Your task to perform on an android device: delete location history Image 0: 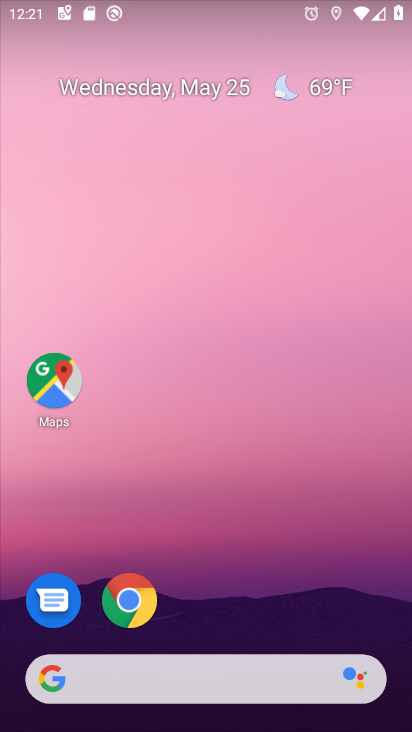
Step 0: drag from (377, 635) to (355, 209)
Your task to perform on an android device: delete location history Image 1: 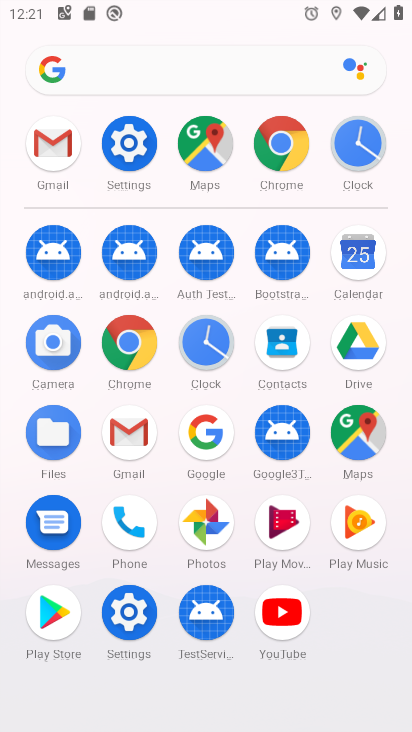
Step 1: click (362, 426)
Your task to perform on an android device: delete location history Image 2: 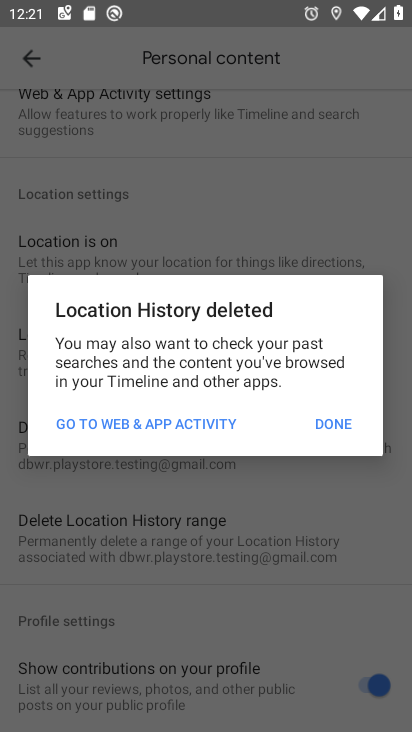
Step 2: click (337, 420)
Your task to perform on an android device: delete location history Image 3: 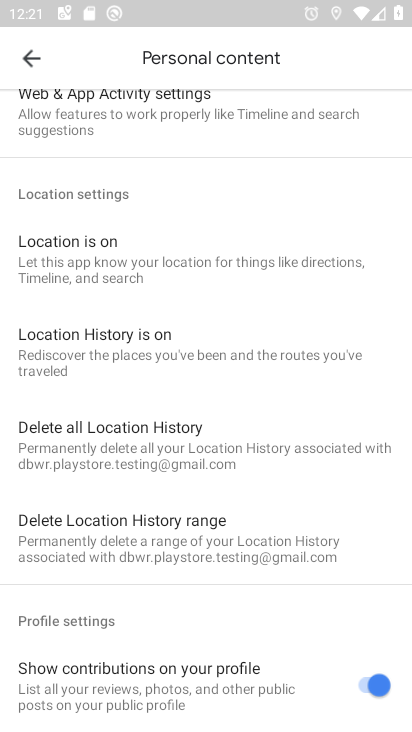
Step 3: drag from (346, 565) to (345, 398)
Your task to perform on an android device: delete location history Image 4: 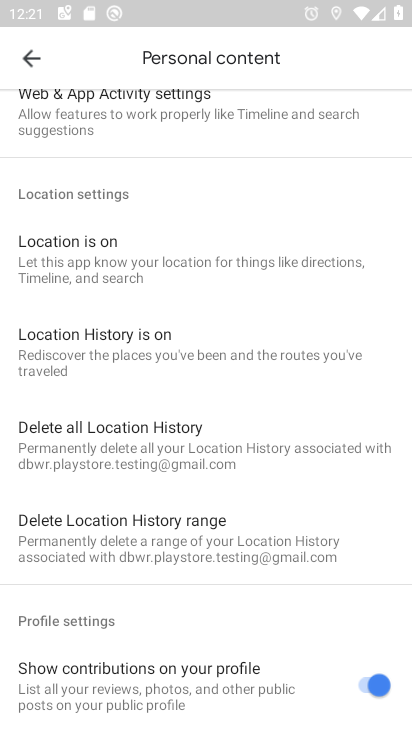
Step 4: click (19, 64)
Your task to perform on an android device: delete location history Image 5: 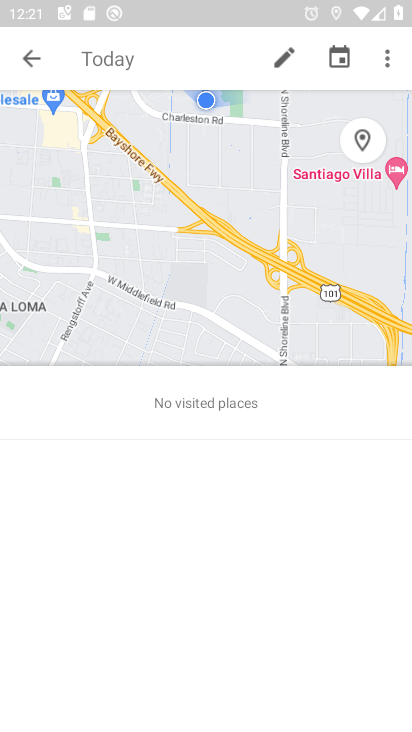
Step 5: click (388, 66)
Your task to perform on an android device: delete location history Image 6: 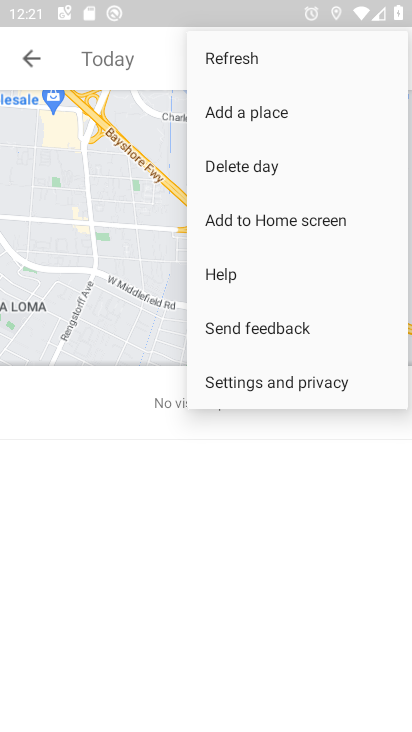
Step 6: click (319, 389)
Your task to perform on an android device: delete location history Image 7: 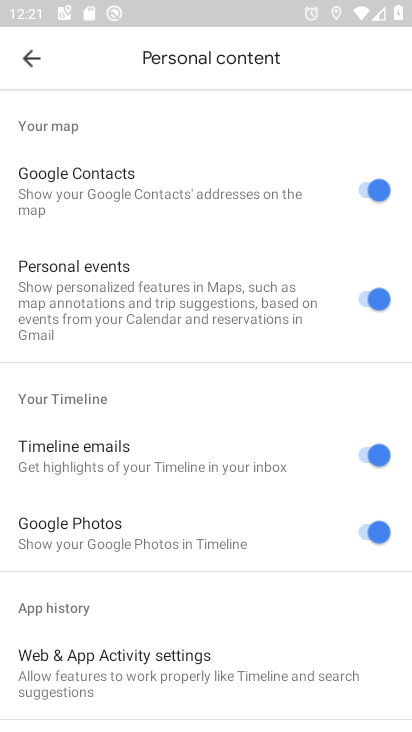
Step 7: drag from (271, 584) to (280, 438)
Your task to perform on an android device: delete location history Image 8: 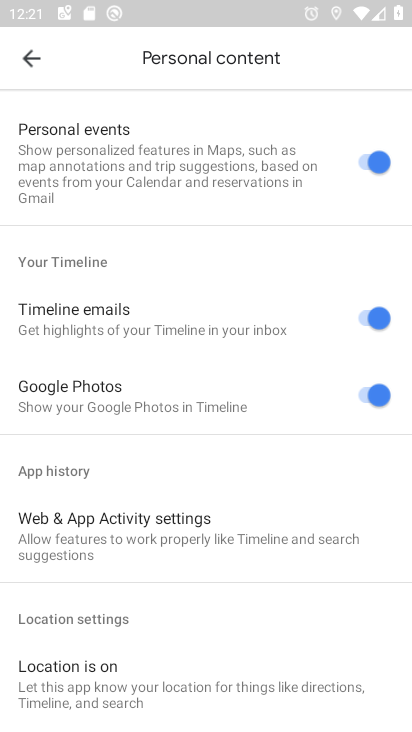
Step 8: drag from (290, 546) to (288, 456)
Your task to perform on an android device: delete location history Image 9: 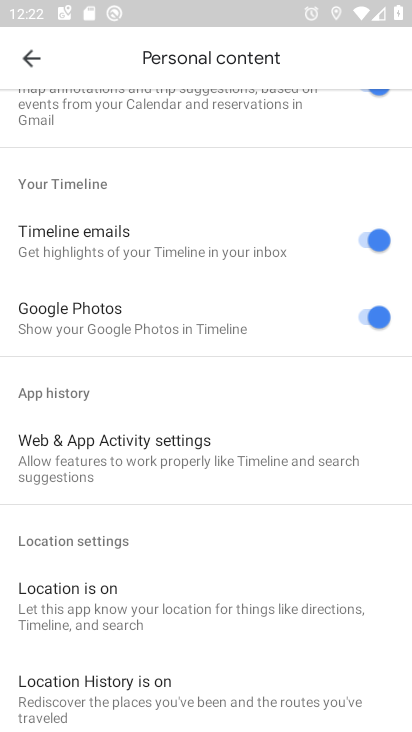
Step 9: drag from (279, 547) to (289, 457)
Your task to perform on an android device: delete location history Image 10: 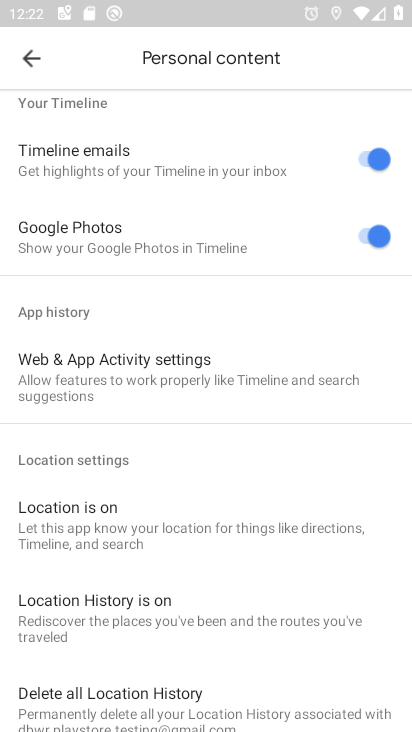
Step 10: drag from (276, 564) to (274, 447)
Your task to perform on an android device: delete location history Image 11: 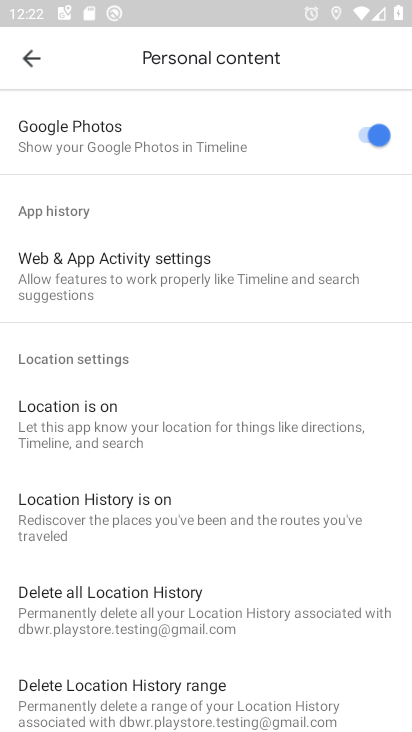
Step 11: drag from (281, 639) to (273, 515)
Your task to perform on an android device: delete location history Image 12: 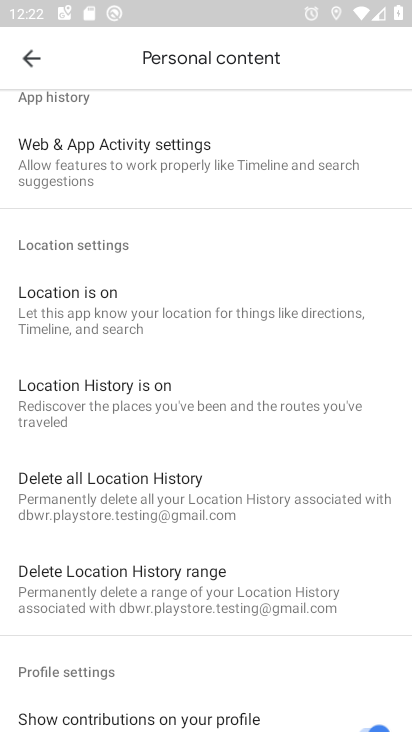
Step 12: click (278, 486)
Your task to perform on an android device: delete location history Image 13: 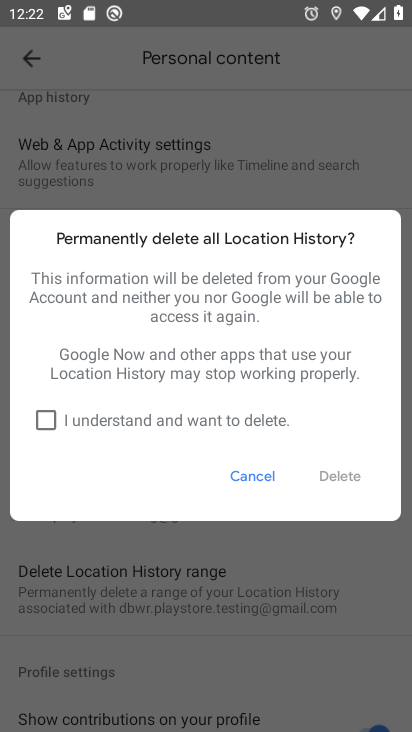
Step 13: click (44, 417)
Your task to perform on an android device: delete location history Image 14: 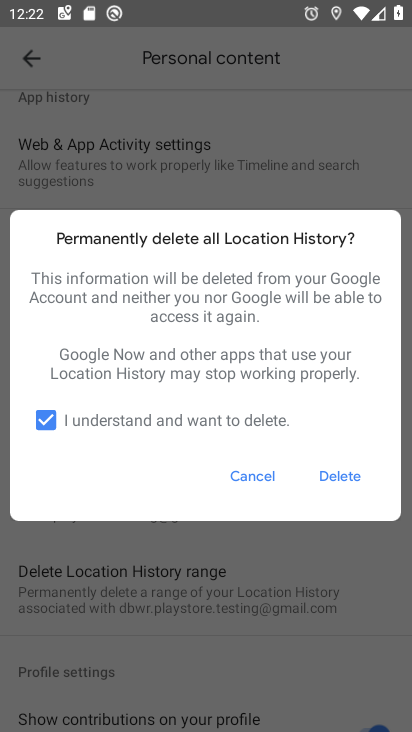
Step 14: click (357, 482)
Your task to perform on an android device: delete location history Image 15: 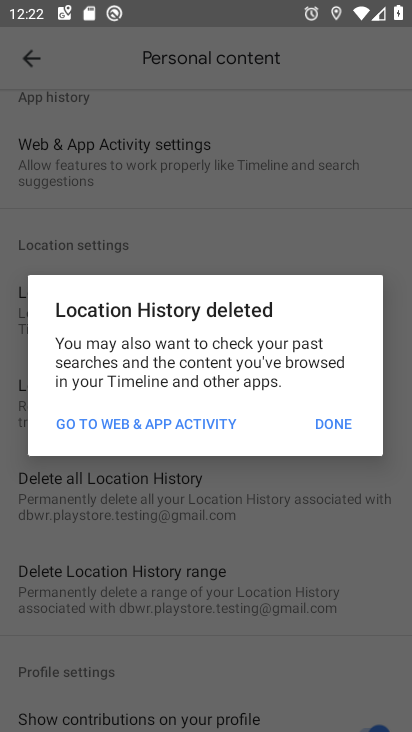
Step 15: task complete